Your task to perform on an android device: set the stopwatch Image 0: 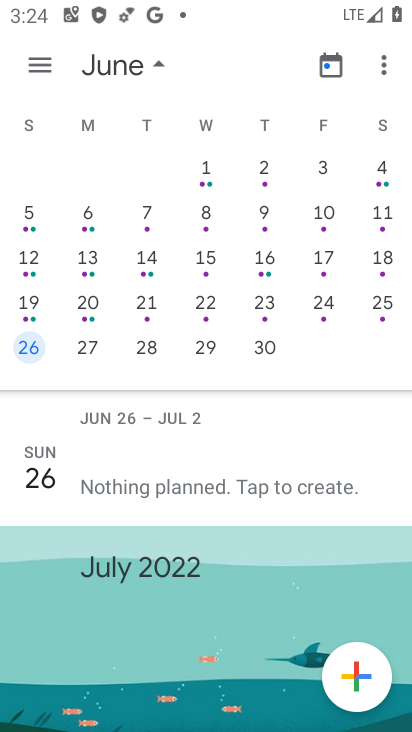
Step 0: press home button
Your task to perform on an android device: set the stopwatch Image 1: 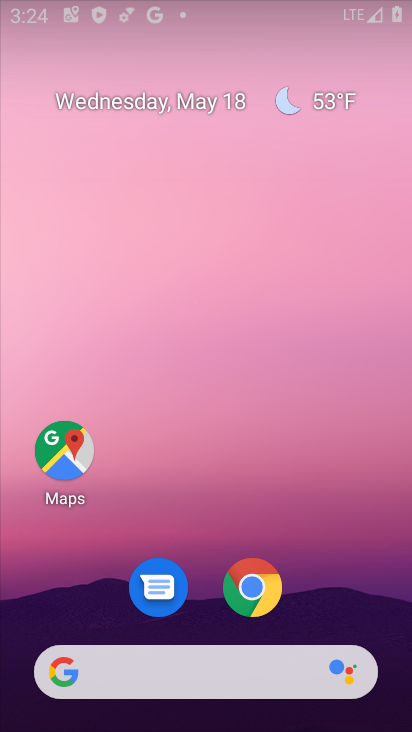
Step 1: drag from (123, 447) to (143, 279)
Your task to perform on an android device: set the stopwatch Image 2: 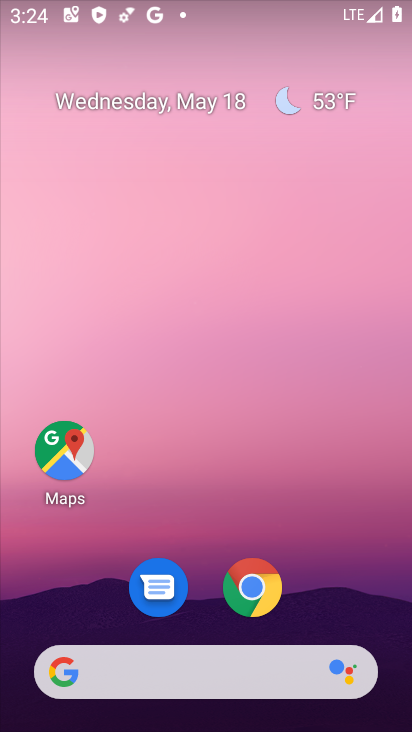
Step 2: drag from (207, 638) to (270, 202)
Your task to perform on an android device: set the stopwatch Image 3: 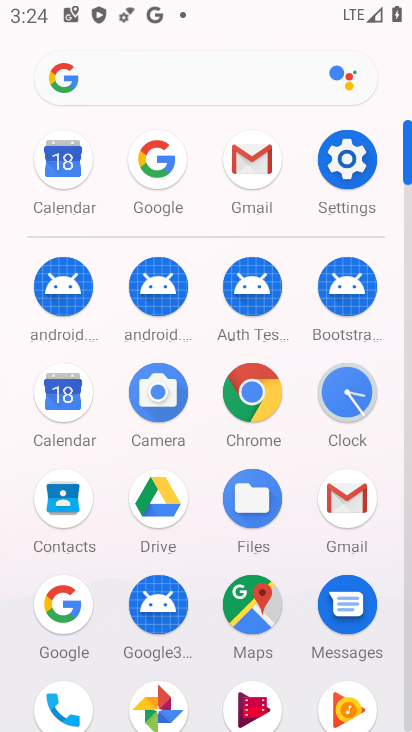
Step 3: click (354, 398)
Your task to perform on an android device: set the stopwatch Image 4: 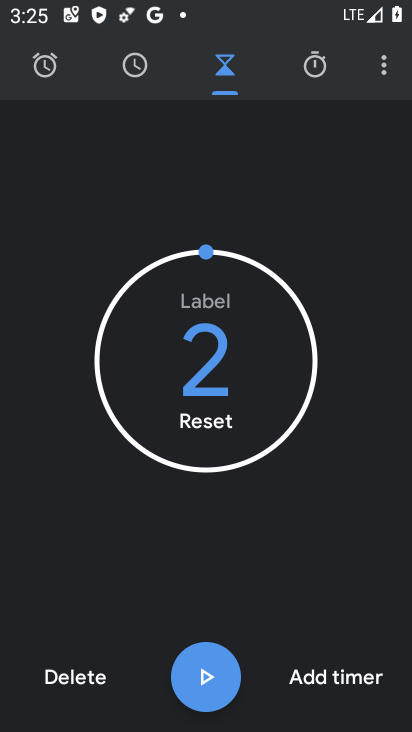
Step 4: click (320, 84)
Your task to perform on an android device: set the stopwatch Image 5: 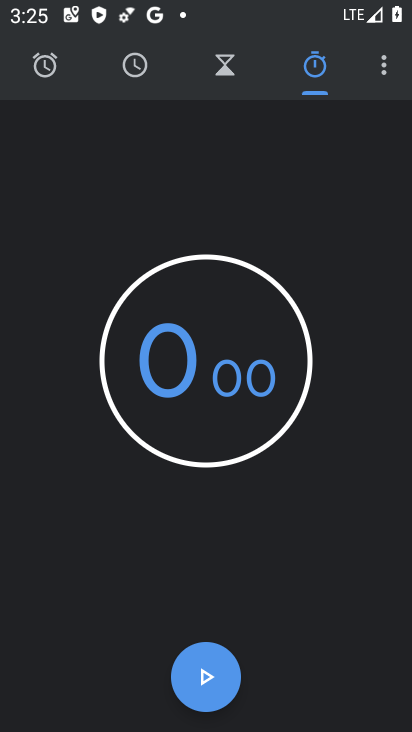
Step 5: click (209, 683)
Your task to perform on an android device: set the stopwatch Image 6: 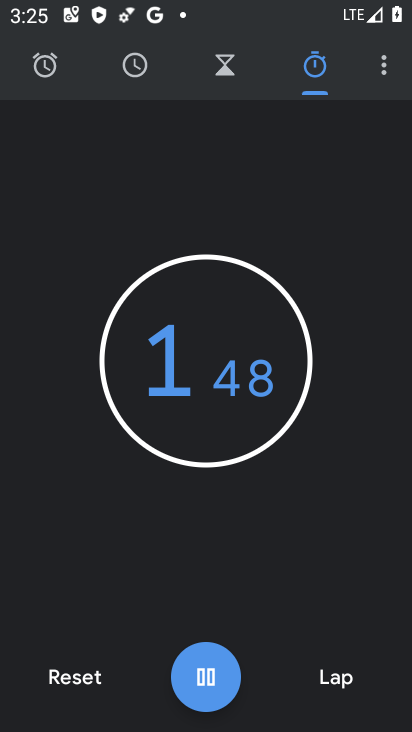
Step 6: task complete